Your task to perform on an android device: Search for seafood restaurants on Google Maps Image 0: 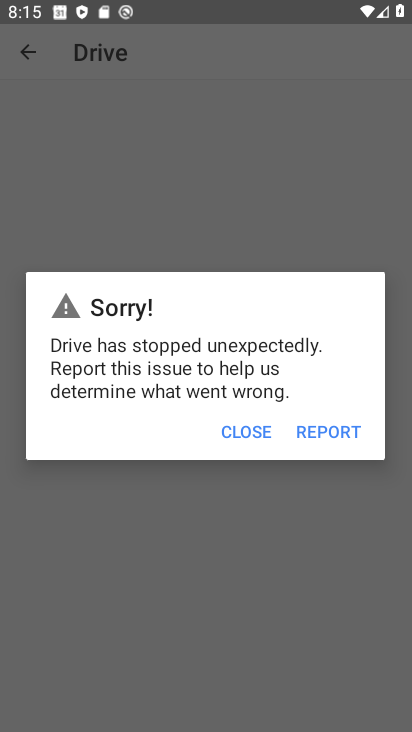
Step 0: press home button
Your task to perform on an android device: Search for seafood restaurants on Google Maps Image 1: 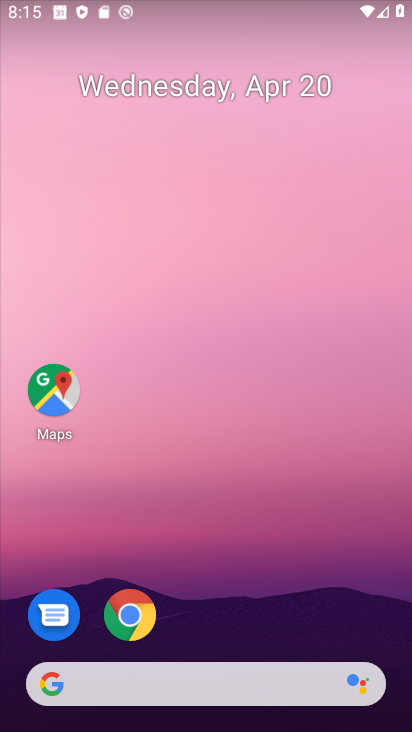
Step 1: click (49, 395)
Your task to perform on an android device: Search for seafood restaurants on Google Maps Image 2: 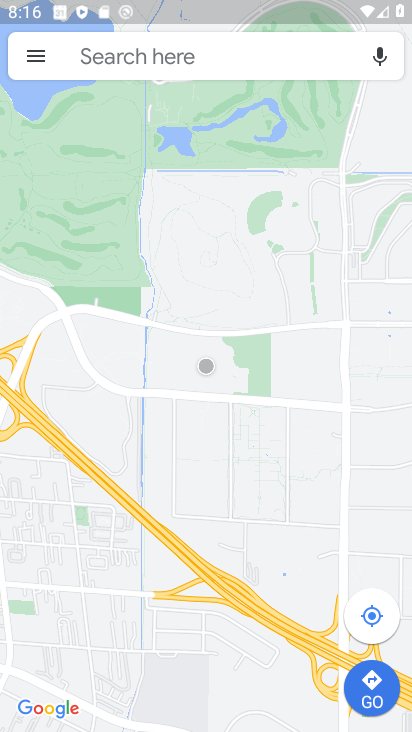
Step 2: click (282, 68)
Your task to perform on an android device: Search for seafood restaurants on Google Maps Image 3: 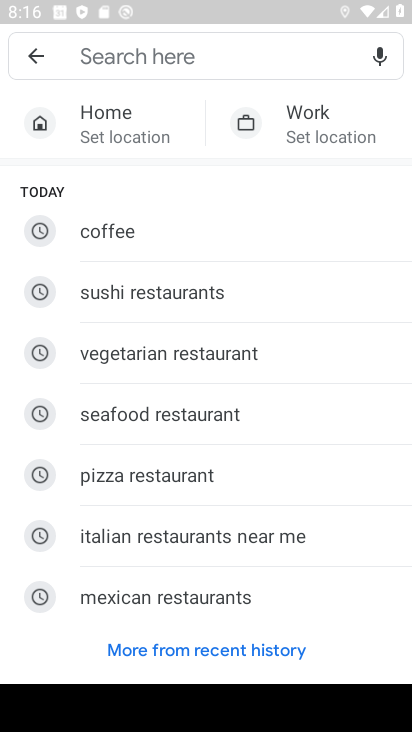
Step 3: type "seafood restaurants"
Your task to perform on an android device: Search for seafood restaurants on Google Maps Image 4: 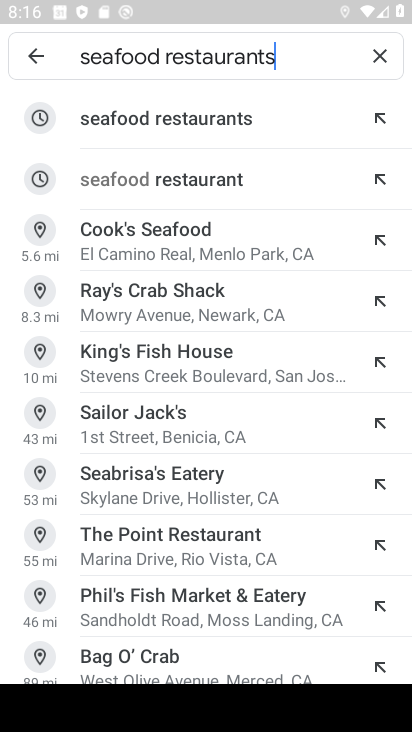
Step 4: click (181, 120)
Your task to perform on an android device: Search for seafood restaurants on Google Maps Image 5: 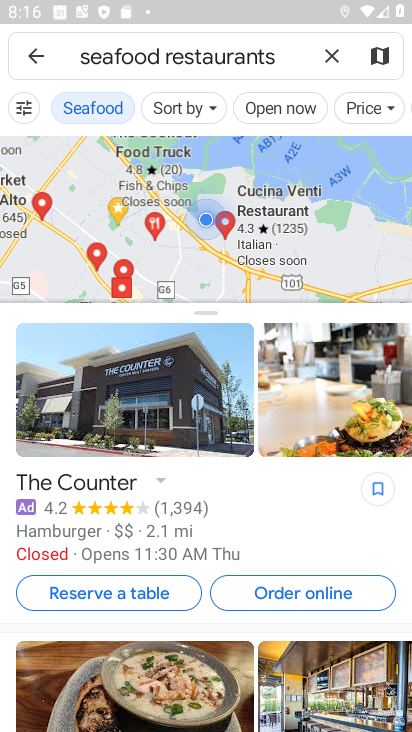
Step 5: task complete